Your task to perform on an android device: open the mobile data screen to see how much data has been used Image 0: 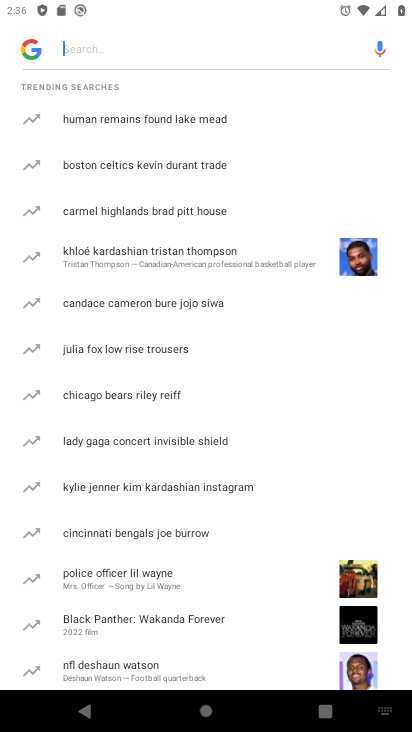
Step 0: press home button
Your task to perform on an android device: open the mobile data screen to see how much data has been used Image 1: 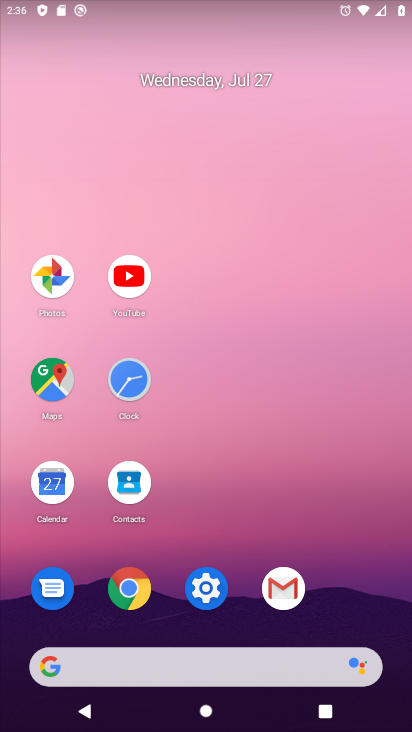
Step 1: click (206, 586)
Your task to perform on an android device: open the mobile data screen to see how much data has been used Image 2: 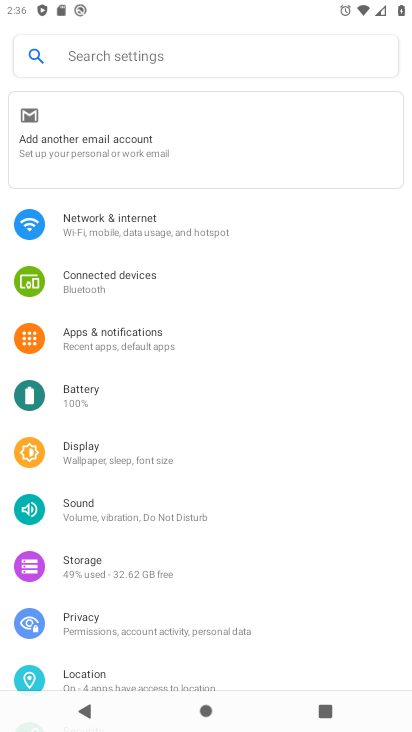
Step 2: click (129, 224)
Your task to perform on an android device: open the mobile data screen to see how much data has been used Image 3: 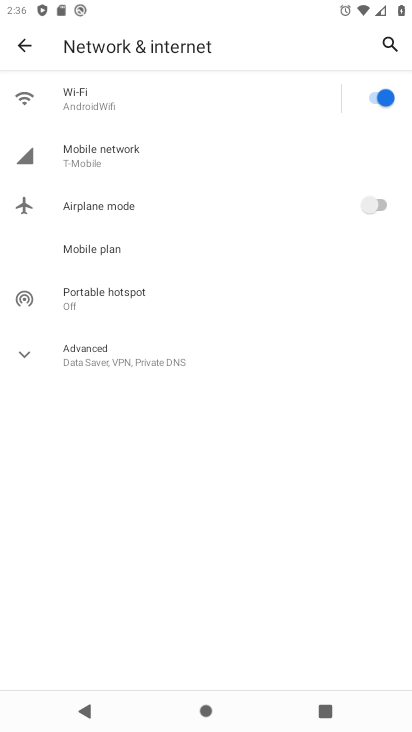
Step 3: click (108, 152)
Your task to perform on an android device: open the mobile data screen to see how much data has been used Image 4: 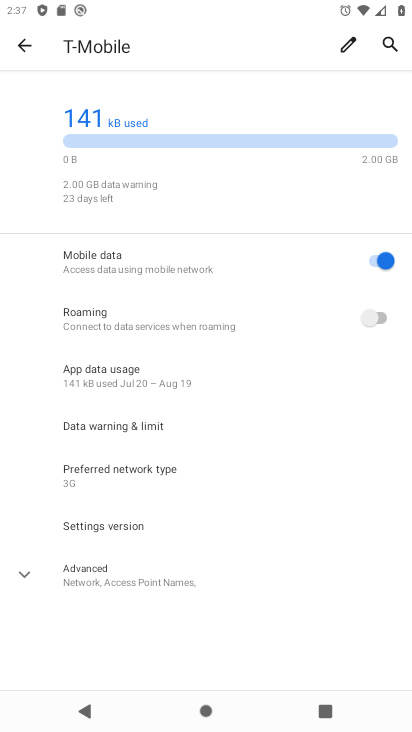
Step 4: task complete